Your task to perform on an android device: set an alarm Image 0: 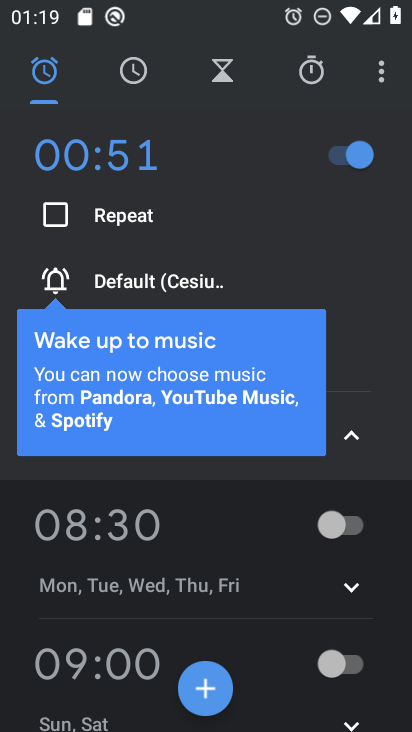
Step 0: click (210, 696)
Your task to perform on an android device: set an alarm Image 1: 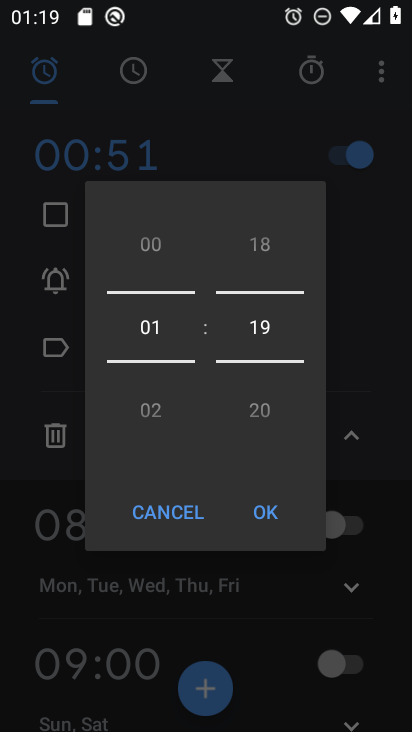
Step 1: click (279, 513)
Your task to perform on an android device: set an alarm Image 2: 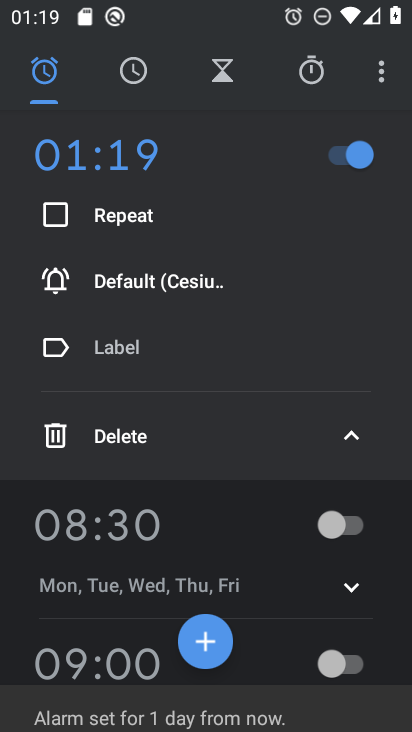
Step 2: task complete